Your task to perform on an android device: Search for vegetarian restaurants on Maps Image 0: 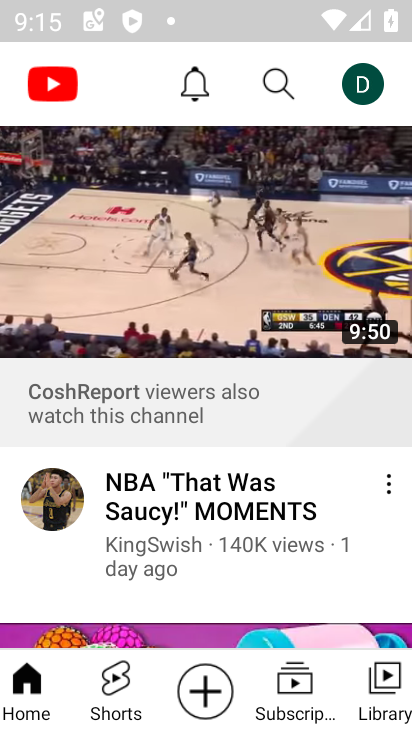
Step 0: task complete